Your task to perform on an android device: What is the news today? Image 0: 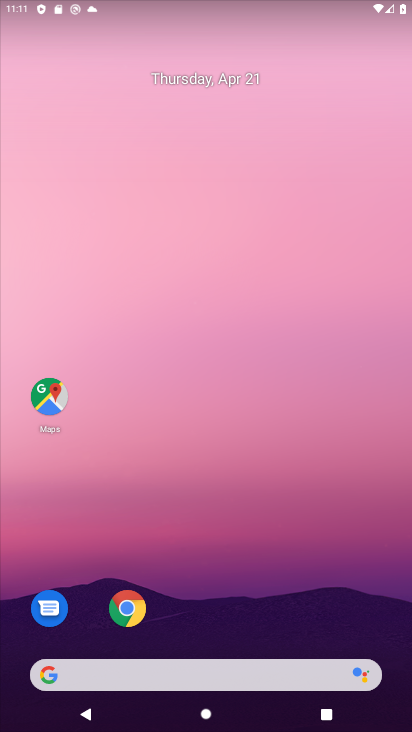
Step 0: click (131, 610)
Your task to perform on an android device: What is the news today? Image 1: 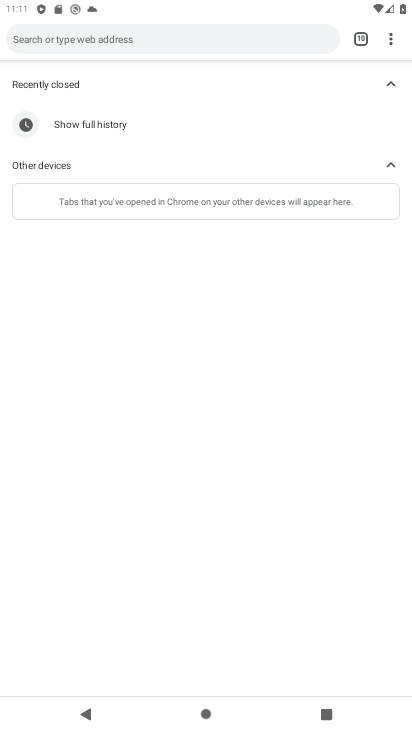
Step 1: click (364, 38)
Your task to perform on an android device: What is the news today? Image 2: 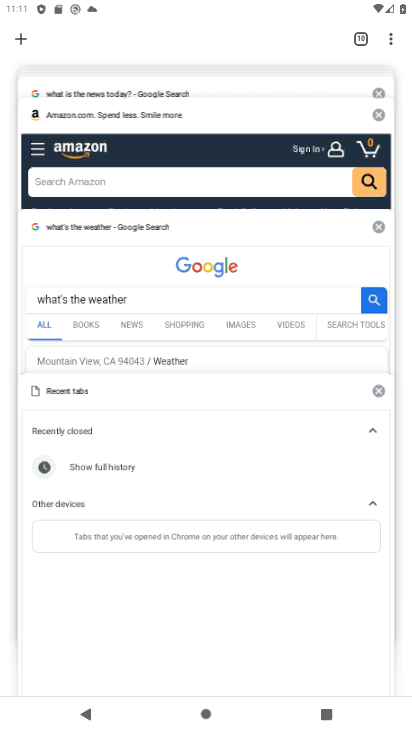
Step 2: drag from (105, 132) to (111, 517)
Your task to perform on an android device: What is the news today? Image 3: 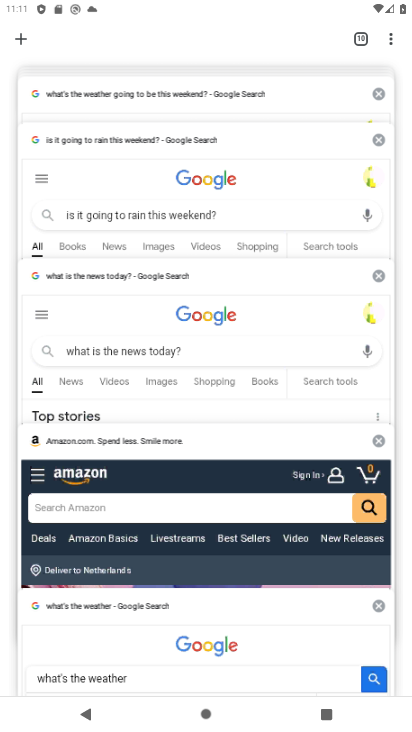
Step 3: click (134, 308)
Your task to perform on an android device: What is the news today? Image 4: 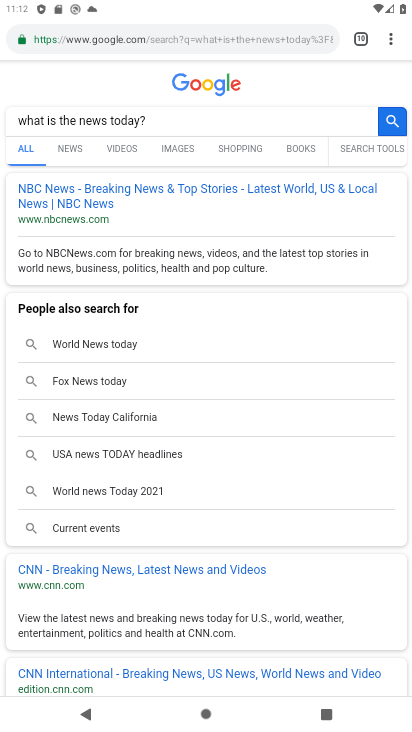
Step 4: click (68, 147)
Your task to perform on an android device: What is the news today? Image 5: 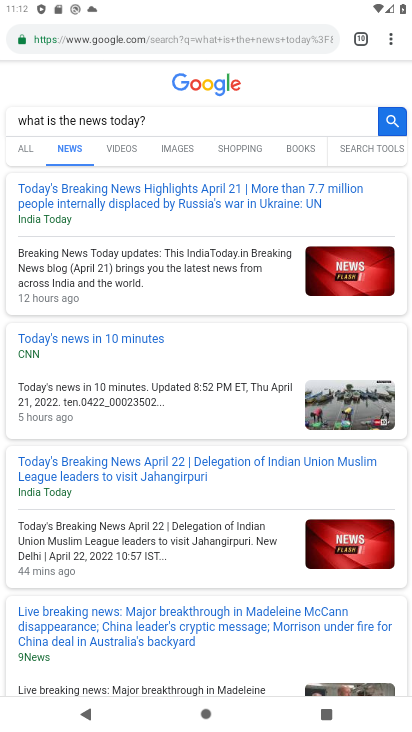
Step 5: task complete